Your task to perform on an android device: Is it going to rain today? Image 0: 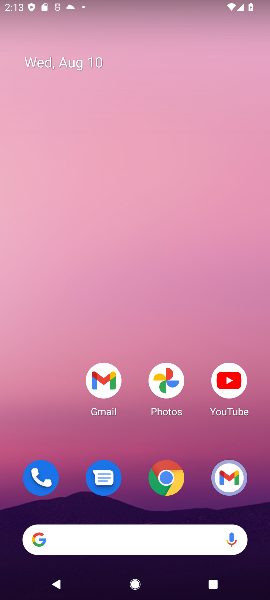
Step 0: click (138, 552)
Your task to perform on an android device: Is it going to rain today? Image 1: 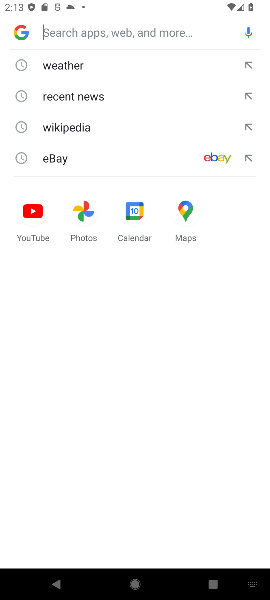
Step 1: press enter
Your task to perform on an android device: Is it going to rain today? Image 2: 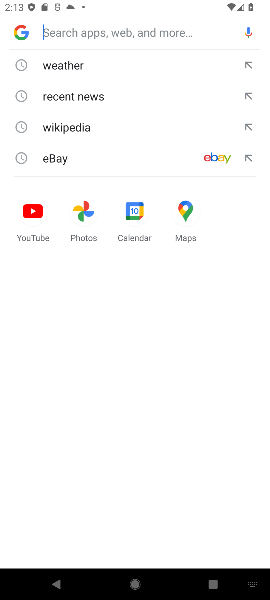
Step 2: type "Is it going to rain today?"
Your task to perform on an android device: Is it going to rain today? Image 3: 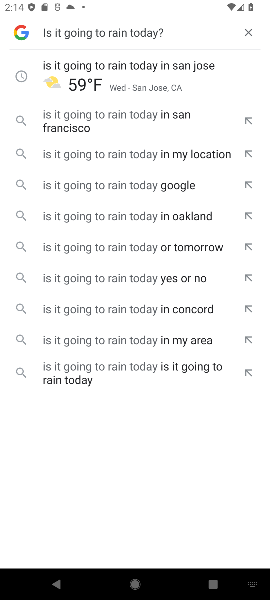
Step 3: press enter
Your task to perform on an android device: Is it going to rain today? Image 4: 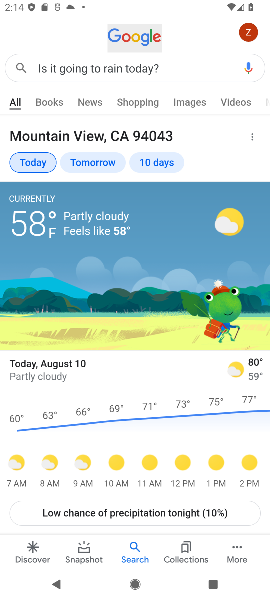
Step 4: task complete